Your task to perform on an android device: find photos in the google photos app Image 0: 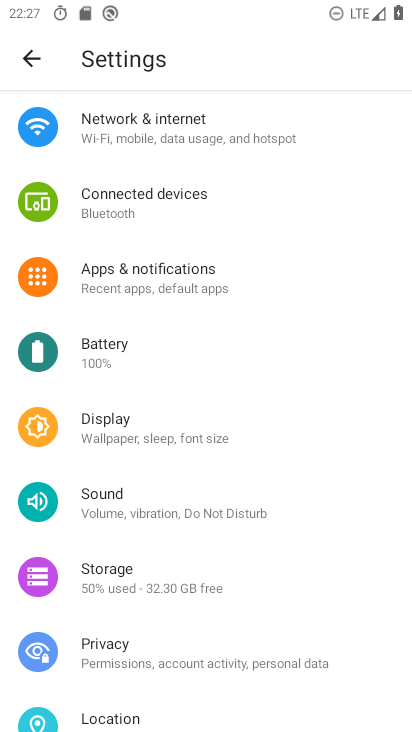
Step 0: press home button
Your task to perform on an android device: find photos in the google photos app Image 1: 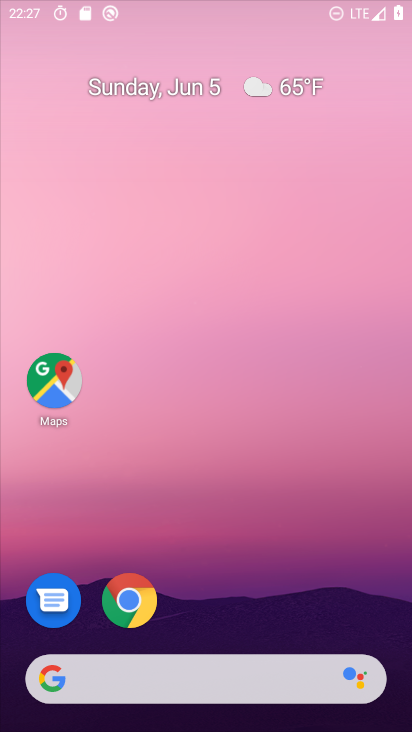
Step 1: drag from (355, 567) to (284, 79)
Your task to perform on an android device: find photos in the google photos app Image 2: 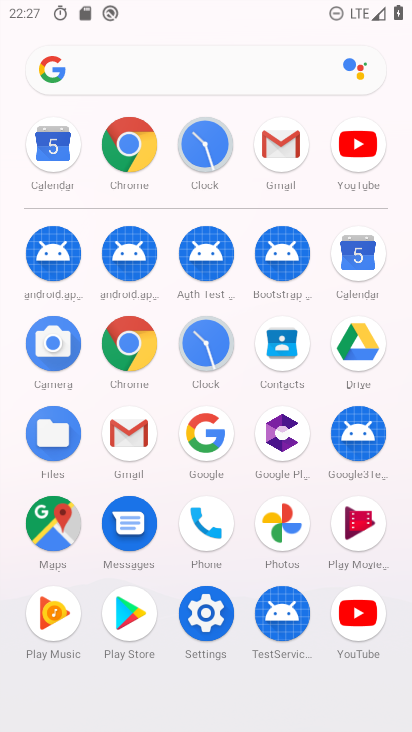
Step 2: click (305, 532)
Your task to perform on an android device: find photos in the google photos app Image 3: 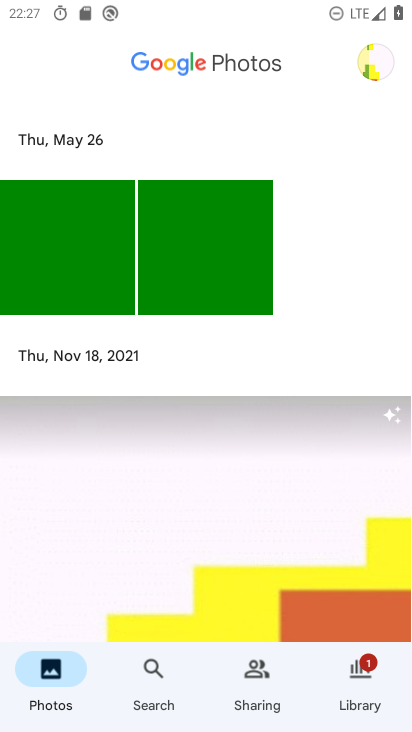
Step 3: task complete